Your task to perform on an android device: set the stopwatch Image 0: 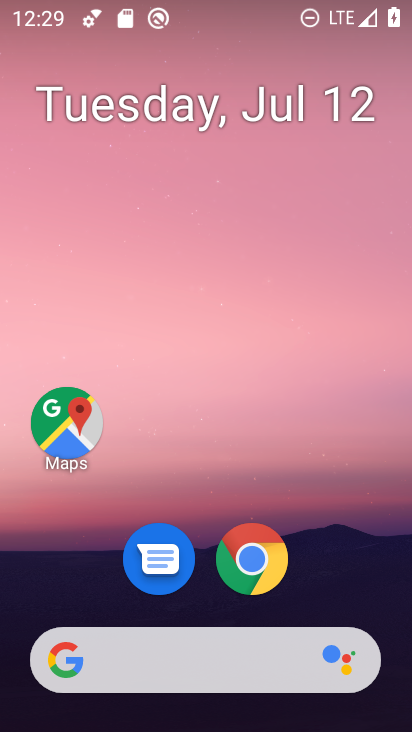
Step 0: drag from (171, 548) to (212, 75)
Your task to perform on an android device: set the stopwatch Image 1: 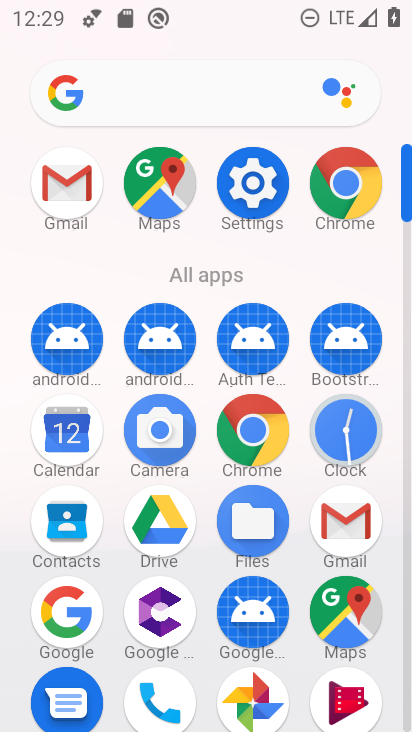
Step 1: click (342, 433)
Your task to perform on an android device: set the stopwatch Image 2: 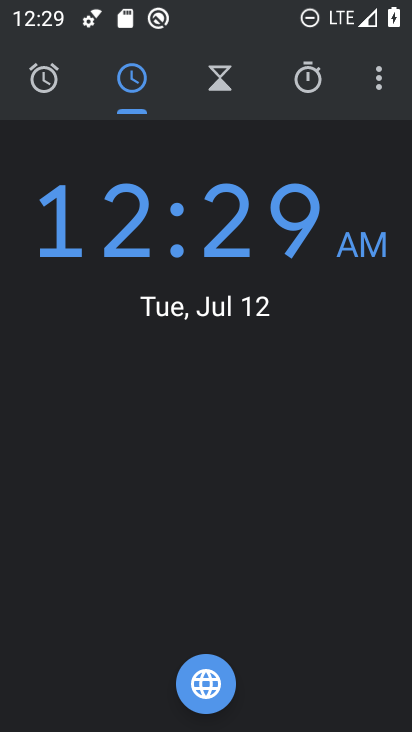
Step 2: click (314, 72)
Your task to perform on an android device: set the stopwatch Image 3: 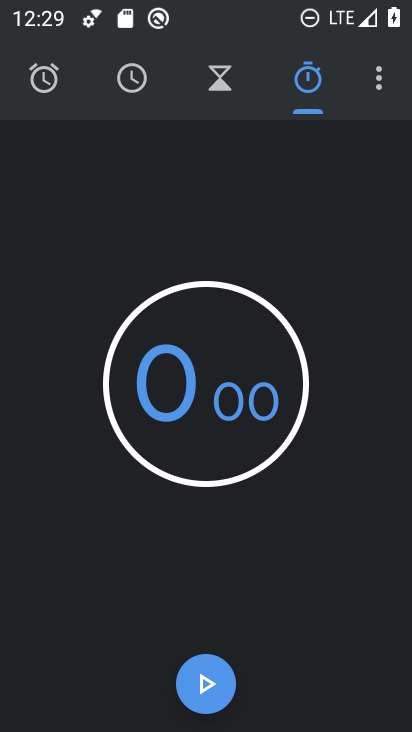
Step 3: click (207, 418)
Your task to perform on an android device: set the stopwatch Image 4: 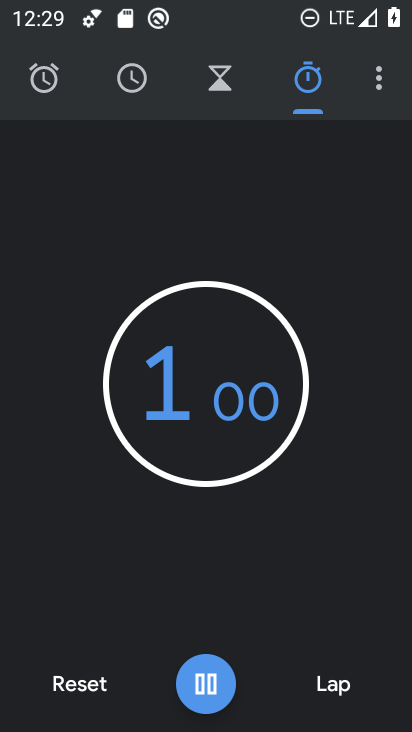
Step 4: click (206, 419)
Your task to perform on an android device: set the stopwatch Image 5: 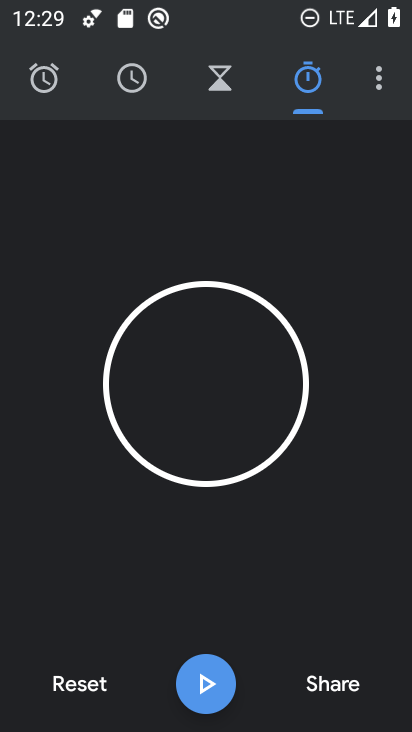
Step 5: task complete